Your task to perform on an android device: all mails in gmail Image 0: 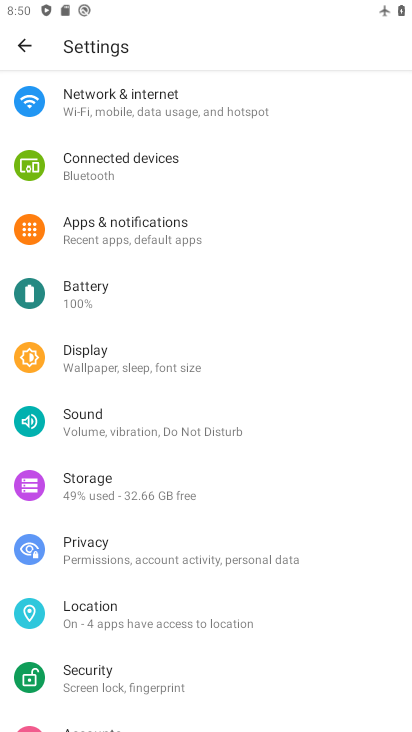
Step 0: press home button
Your task to perform on an android device: all mails in gmail Image 1: 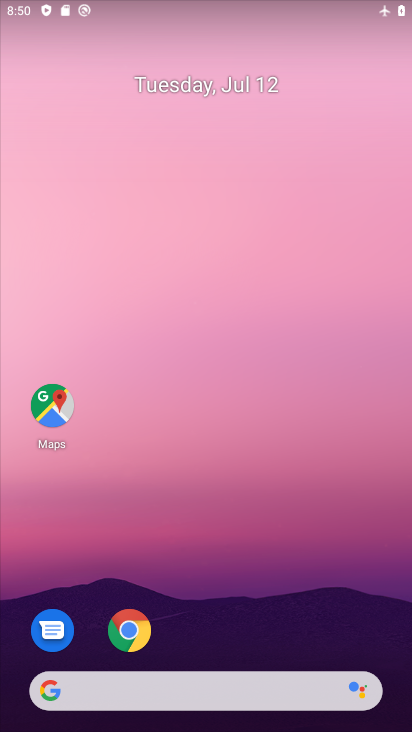
Step 1: drag from (208, 625) to (217, 114)
Your task to perform on an android device: all mails in gmail Image 2: 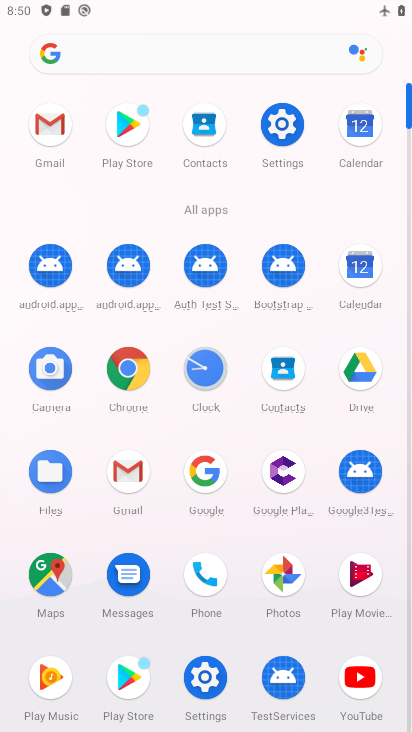
Step 2: click (58, 133)
Your task to perform on an android device: all mails in gmail Image 3: 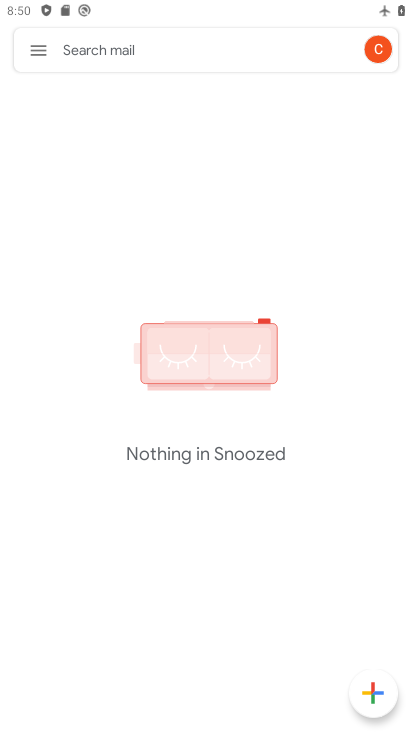
Step 3: click (43, 49)
Your task to perform on an android device: all mails in gmail Image 4: 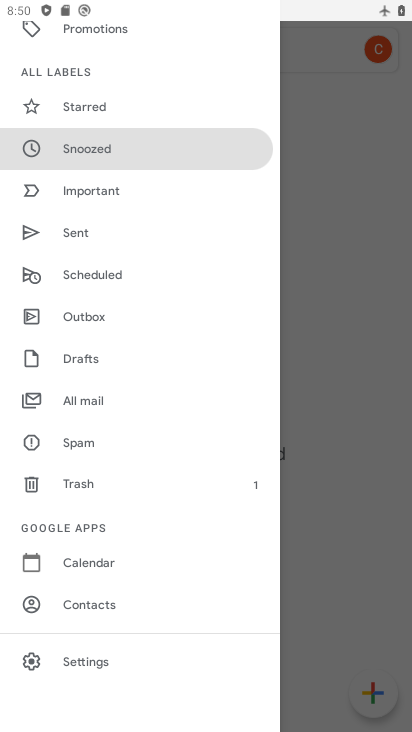
Step 4: drag from (125, 515) to (128, 172)
Your task to perform on an android device: all mails in gmail Image 5: 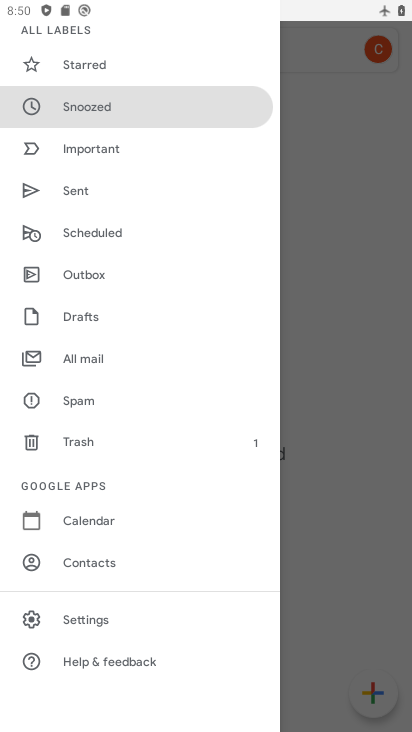
Step 5: click (75, 357)
Your task to perform on an android device: all mails in gmail Image 6: 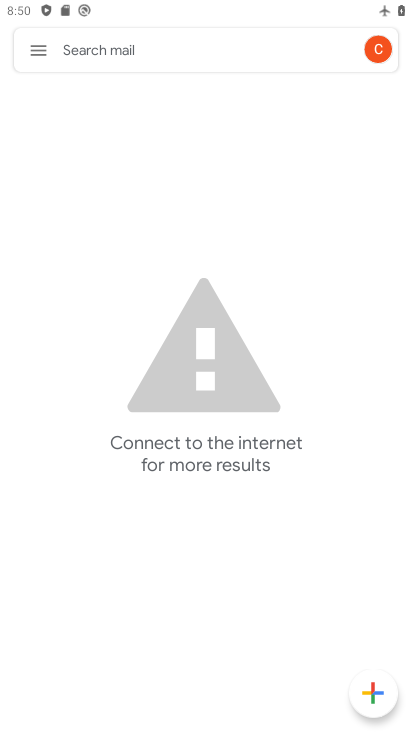
Step 6: task complete